Your task to perform on an android device: toggle notifications settings in the gmail app Image 0: 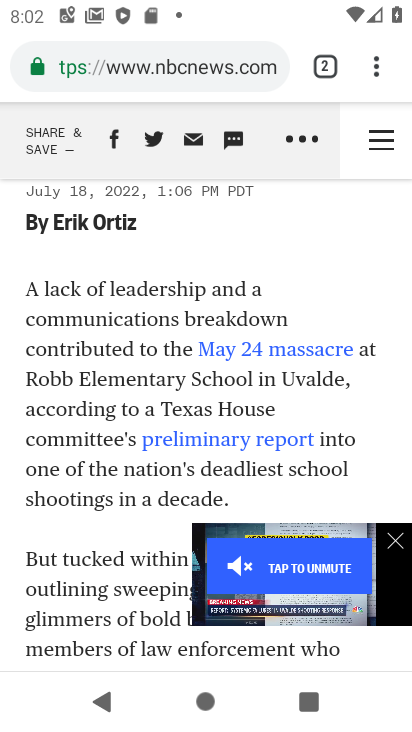
Step 0: press home button
Your task to perform on an android device: toggle notifications settings in the gmail app Image 1: 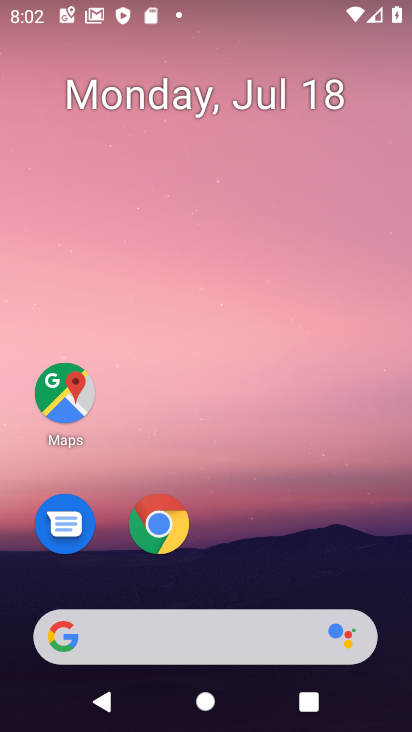
Step 1: drag from (285, 539) to (281, 145)
Your task to perform on an android device: toggle notifications settings in the gmail app Image 2: 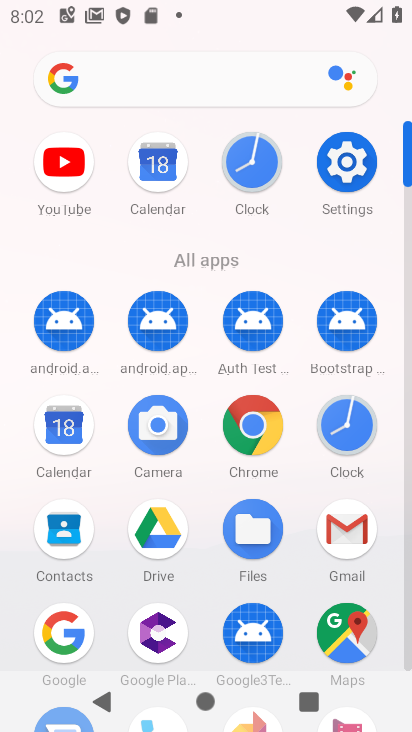
Step 2: click (341, 523)
Your task to perform on an android device: toggle notifications settings in the gmail app Image 3: 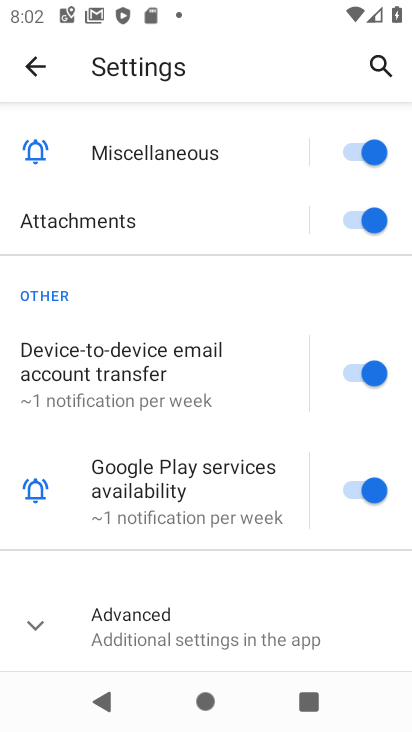
Step 3: click (34, 66)
Your task to perform on an android device: toggle notifications settings in the gmail app Image 4: 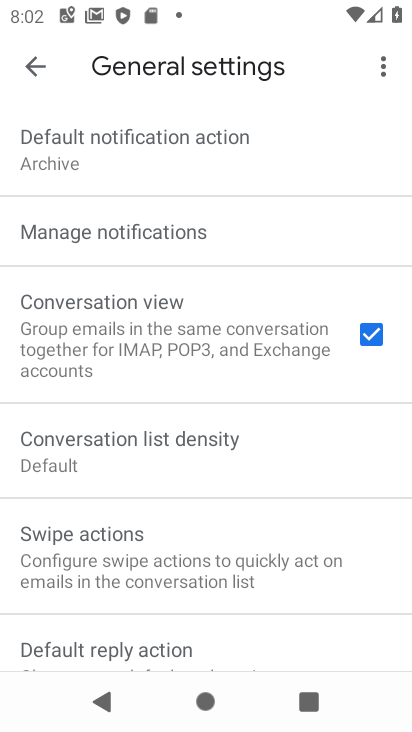
Step 4: click (165, 235)
Your task to perform on an android device: toggle notifications settings in the gmail app Image 5: 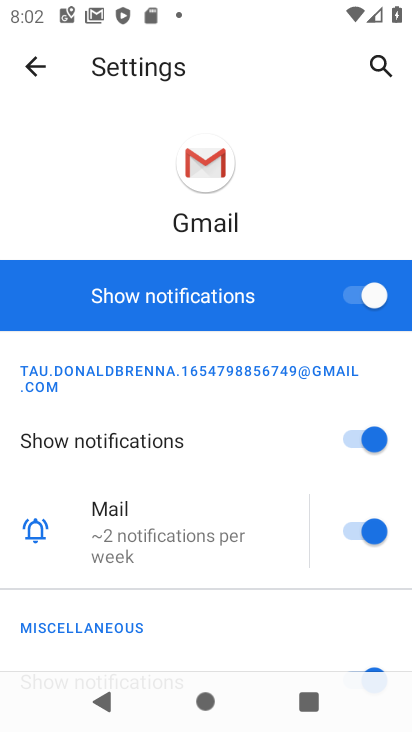
Step 5: click (355, 301)
Your task to perform on an android device: toggle notifications settings in the gmail app Image 6: 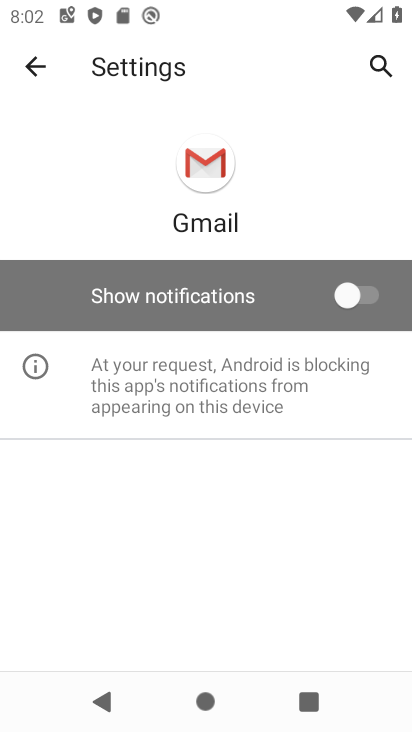
Step 6: task complete